Your task to perform on an android device: change the clock display to analog Image 0: 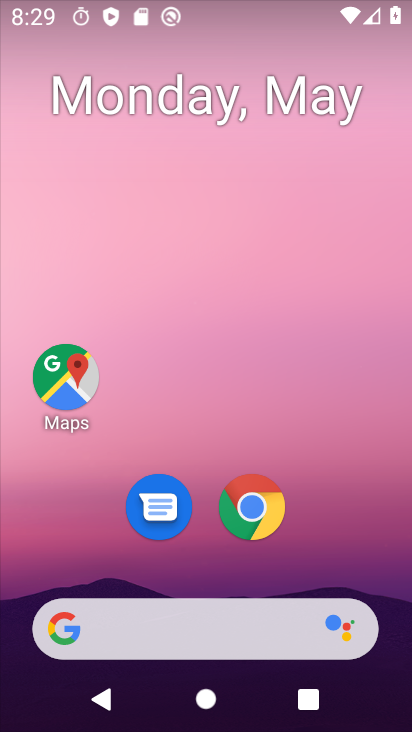
Step 0: drag from (206, 591) to (286, 8)
Your task to perform on an android device: change the clock display to analog Image 1: 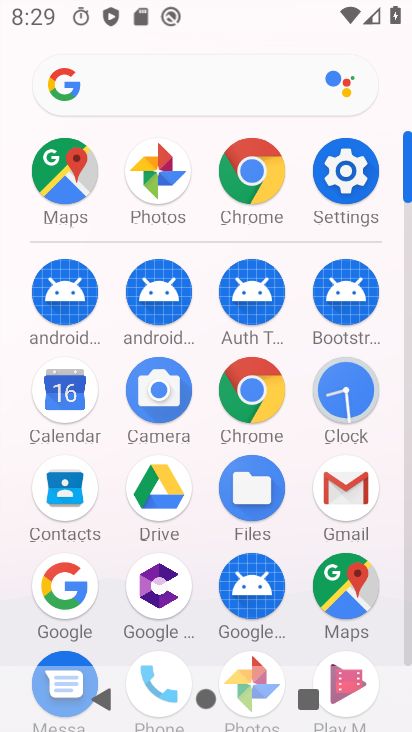
Step 1: click (365, 396)
Your task to perform on an android device: change the clock display to analog Image 2: 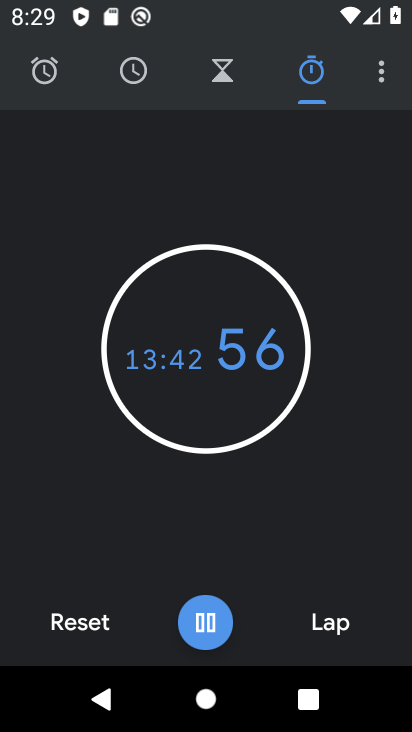
Step 2: click (84, 627)
Your task to perform on an android device: change the clock display to analog Image 3: 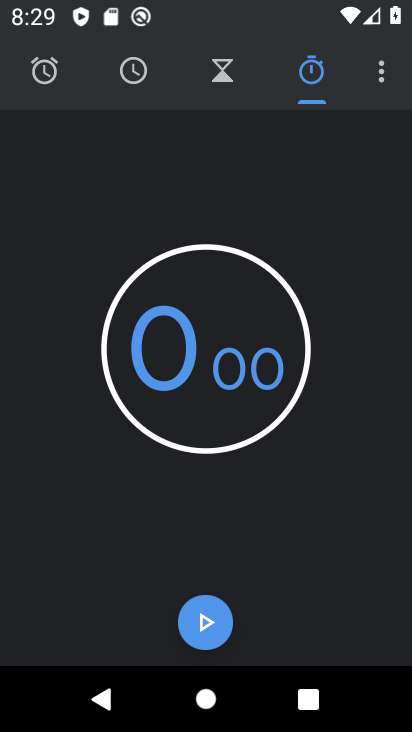
Step 3: click (386, 67)
Your task to perform on an android device: change the clock display to analog Image 4: 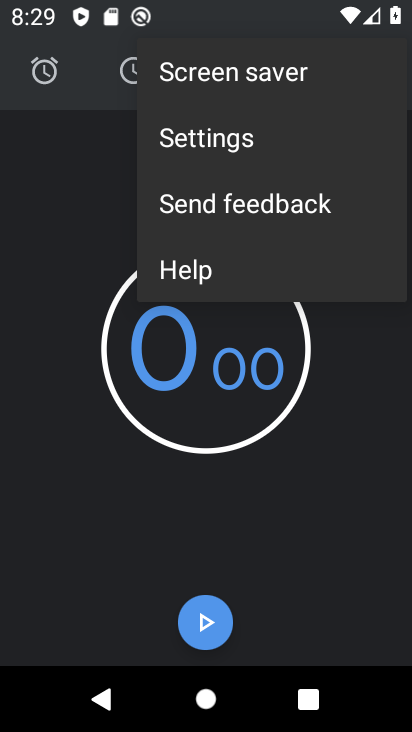
Step 4: click (249, 153)
Your task to perform on an android device: change the clock display to analog Image 5: 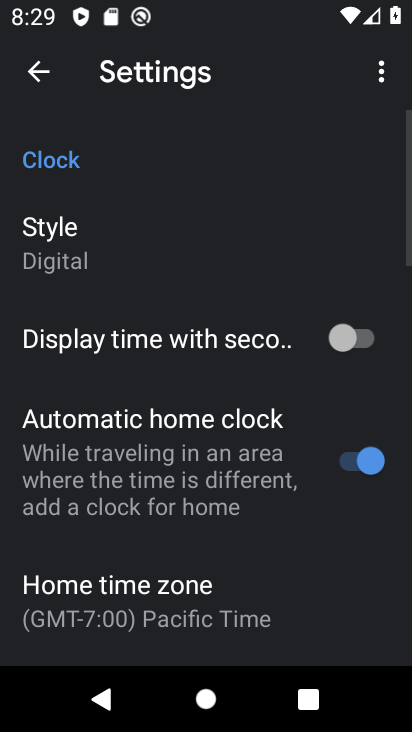
Step 5: click (100, 256)
Your task to perform on an android device: change the clock display to analog Image 6: 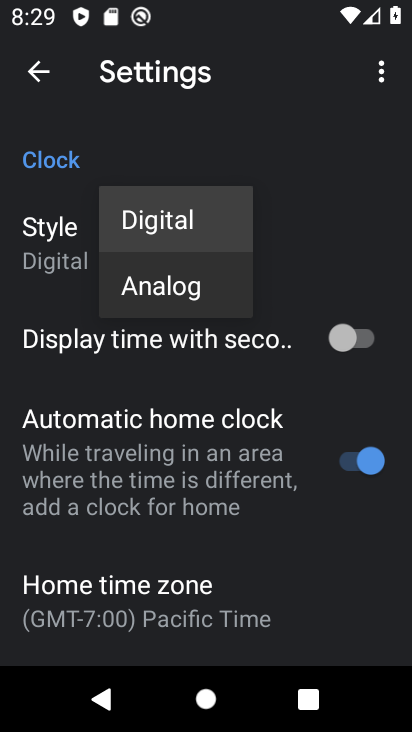
Step 6: click (203, 293)
Your task to perform on an android device: change the clock display to analog Image 7: 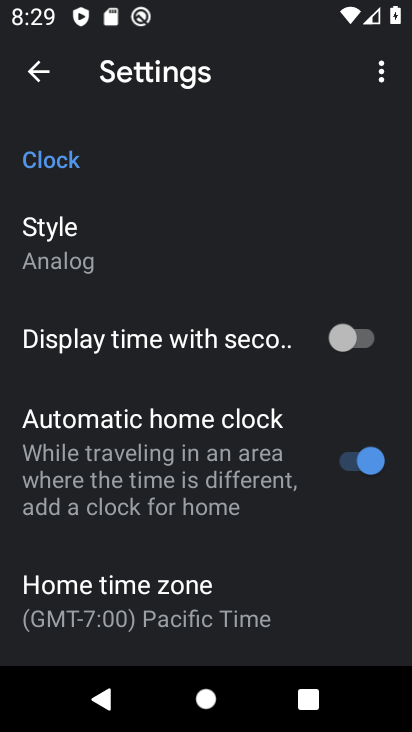
Step 7: task complete